Your task to perform on an android device: check the backup settings in the google photos Image 0: 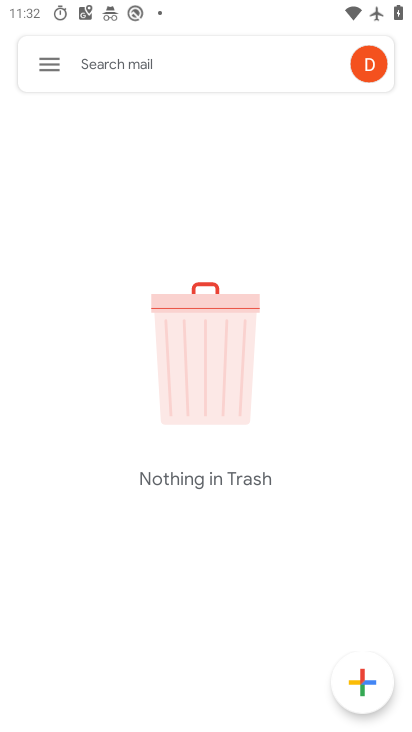
Step 0: press back button
Your task to perform on an android device: check the backup settings in the google photos Image 1: 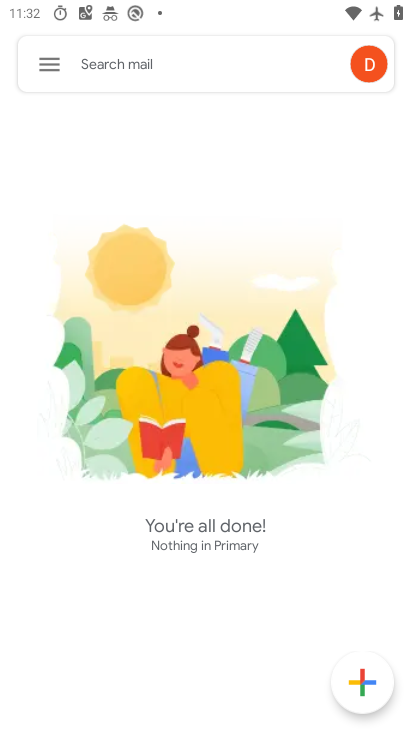
Step 1: drag from (260, 571) to (98, 150)
Your task to perform on an android device: check the backup settings in the google photos Image 2: 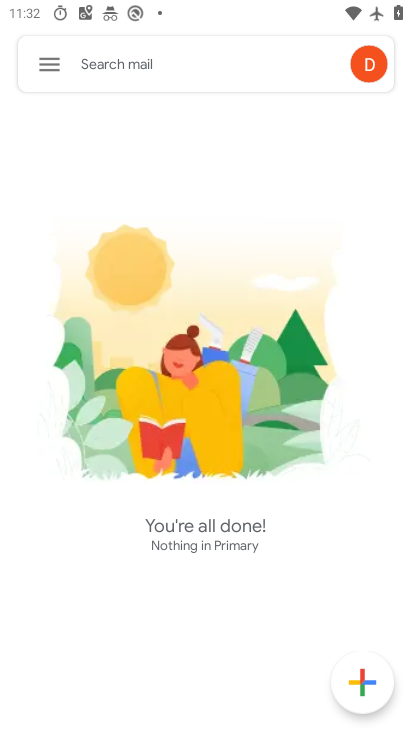
Step 2: drag from (225, 539) to (132, 124)
Your task to perform on an android device: check the backup settings in the google photos Image 3: 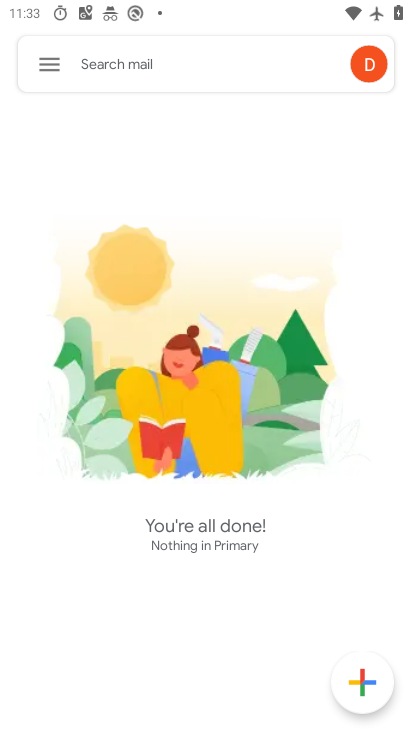
Step 3: drag from (226, 519) to (111, 129)
Your task to perform on an android device: check the backup settings in the google photos Image 4: 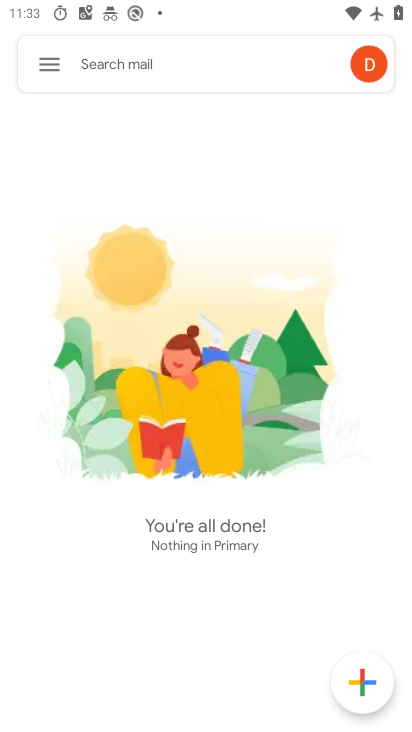
Step 4: drag from (247, 448) to (258, 126)
Your task to perform on an android device: check the backup settings in the google photos Image 5: 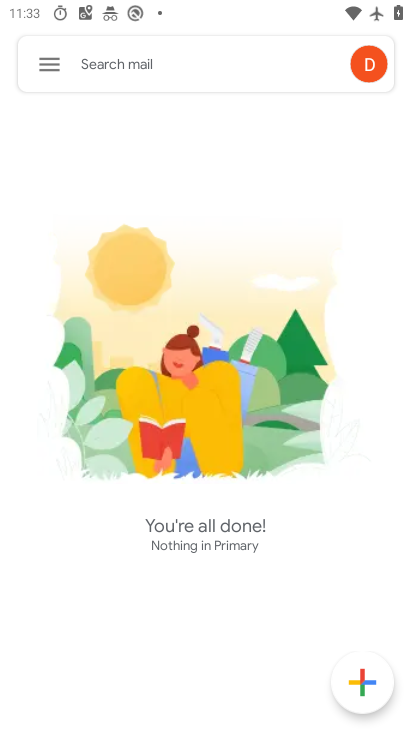
Step 5: drag from (235, 510) to (201, 91)
Your task to perform on an android device: check the backup settings in the google photos Image 6: 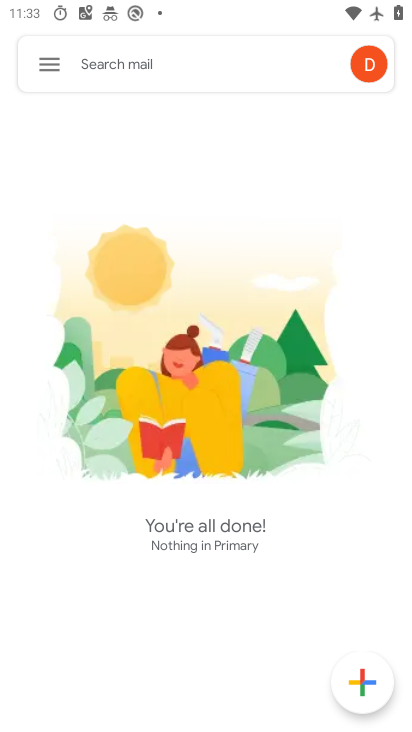
Step 6: drag from (205, 389) to (149, 241)
Your task to perform on an android device: check the backup settings in the google photos Image 7: 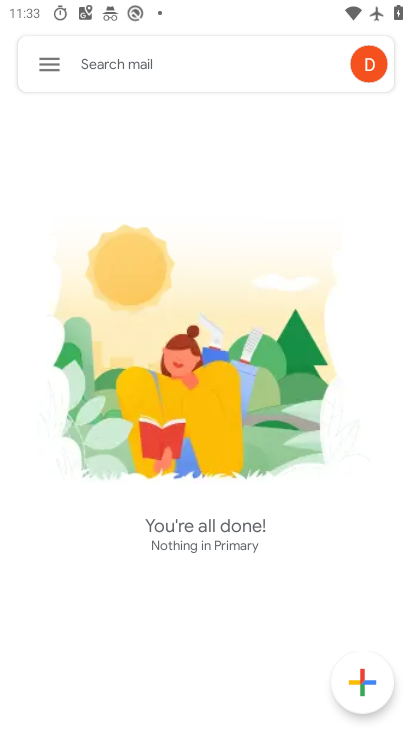
Step 7: drag from (173, 463) to (154, 264)
Your task to perform on an android device: check the backup settings in the google photos Image 8: 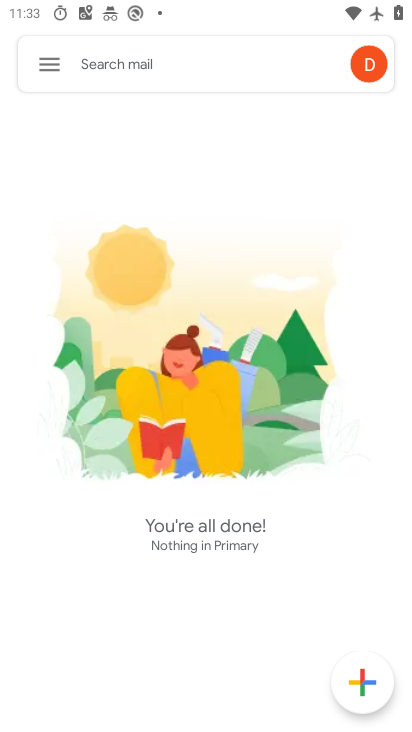
Step 8: drag from (221, 613) to (212, 261)
Your task to perform on an android device: check the backup settings in the google photos Image 9: 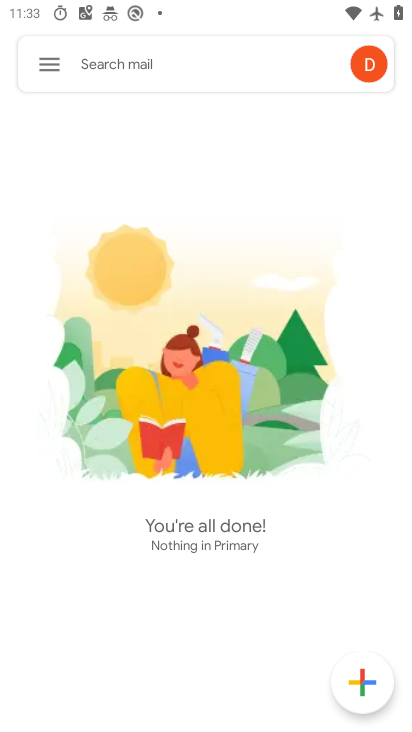
Step 9: drag from (215, 513) to (238, 86)
Your task to perform on an android device: check the backup settings in the google photos Image 10: 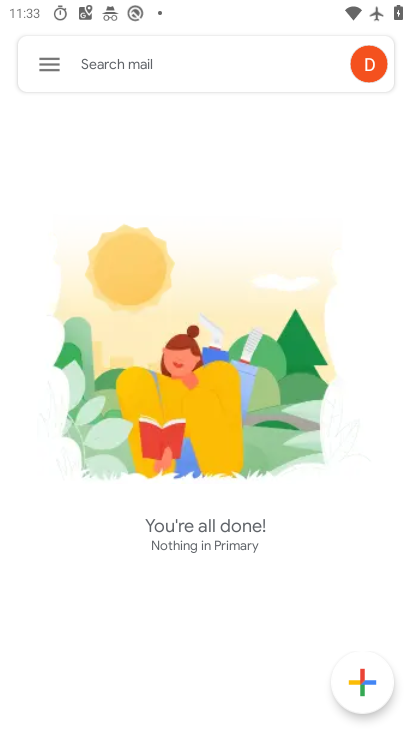
Step 10: drag from (321, 491) to (288, 78)
Your task to perform on an android device: check the backup settings in the google photos Image 11: 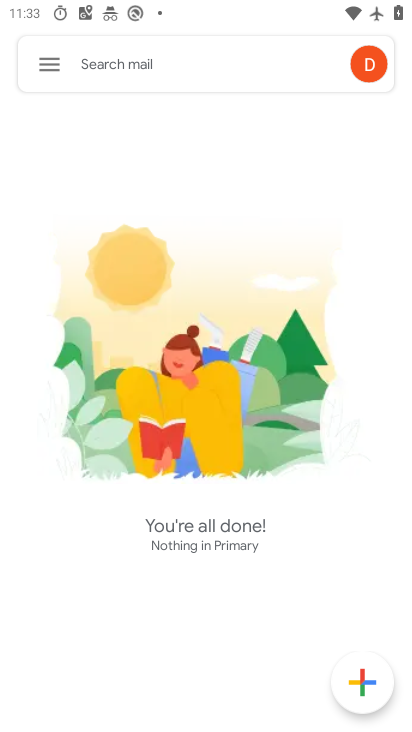
Step 11: press back button
Your task to perform on an android device: check the backup settings in the google photos Image 12: 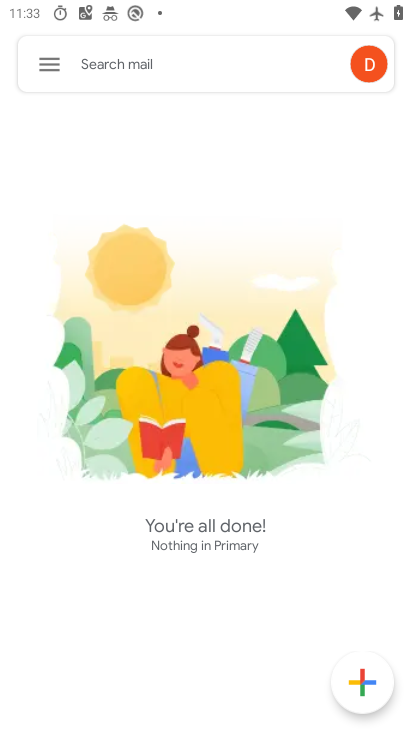
Step 12: press back button
Your task to perform on an android device: check the backup settings in the google photos Image 13: 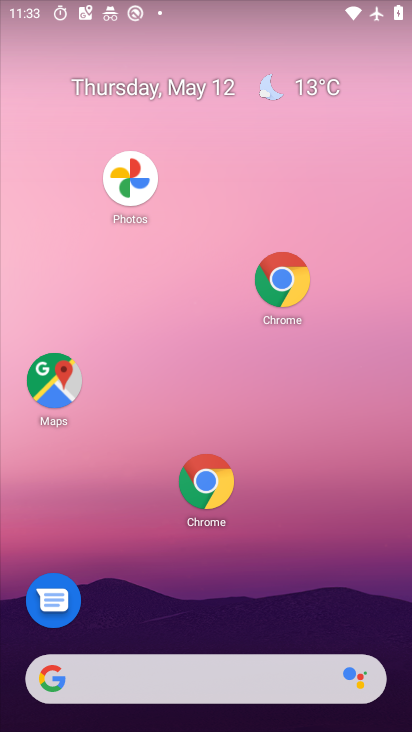
Step 13: drag from (321, 543) to (216, 166)
Your task to perform on an android device: check the backup settings in the google photos Image 14: 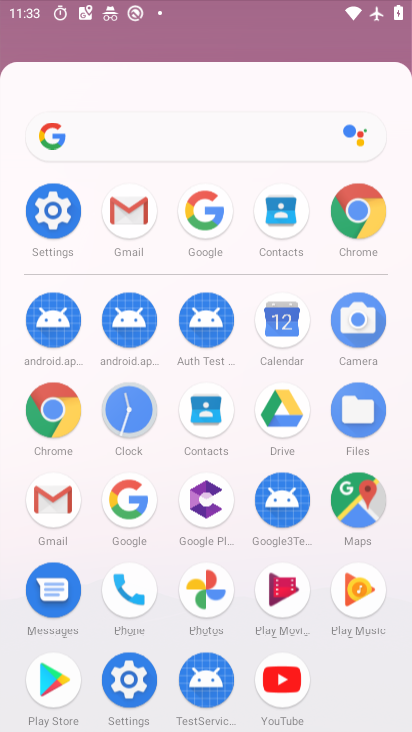
Step 14: drag from (245, 407) to (174, 183)
Your task to perform on an android device: check the backup settings in the google photos Image 15: 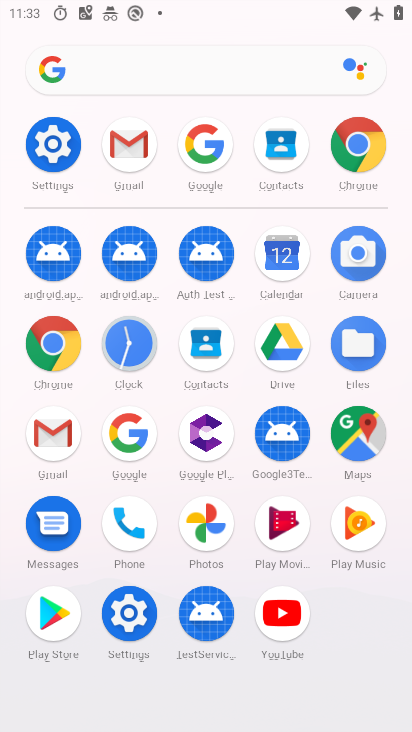
Step 15: click (207, 517)
Your task to perform on an android device: check the backup settings in the google photos Image 16: 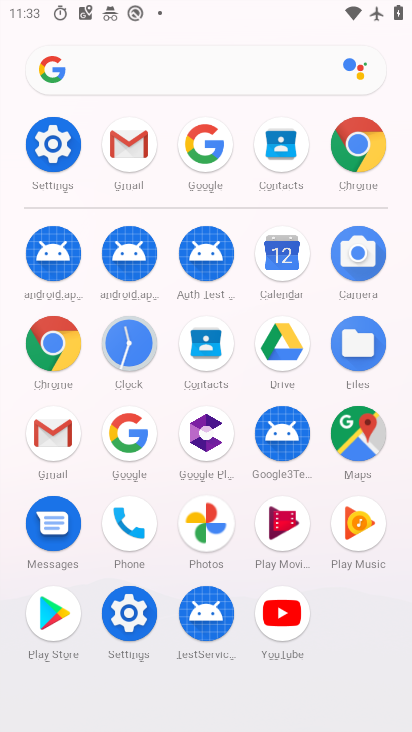
Step 16: click (207, 517)
Your task to perform on an android device: check the backup settings in the google photos Image 17: 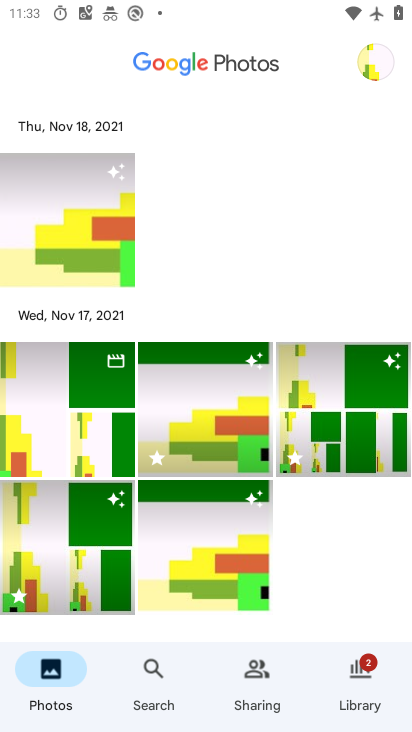
Step 17: drag from (183, 413) to (175, 173)
Your task to perform on an android device: check the backup settings in the google photos Image 18: 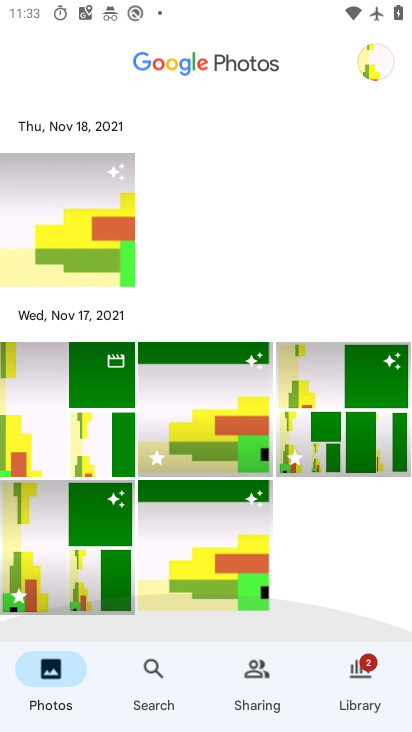
Step 18: drag from (177, 446) to (58, 6)
Your task to perform on an android device: check the backup settings in the google photos Image 19: 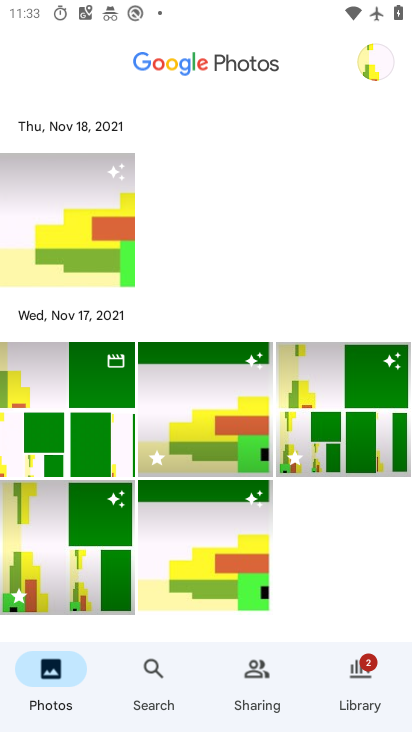
Step 19: drag from (158, 400) to (124, 55)
Your task to perform on an android device: check the backup settings in the google photos Image 20: 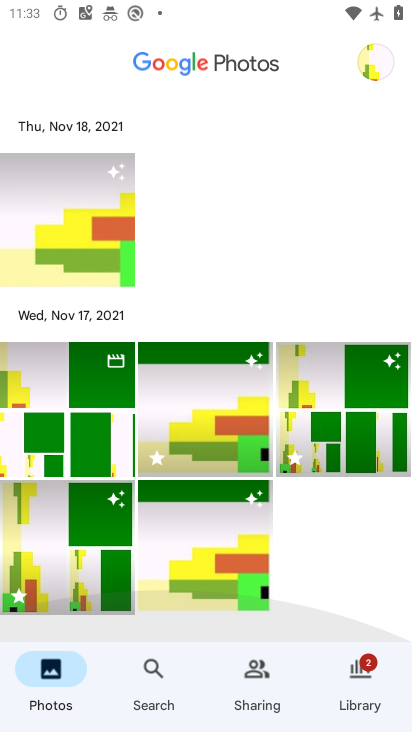
Step 20: drag from (227, 483) to (178, 196)
Your task to perform on an android device: check the backup settings in the google photos Image 21: 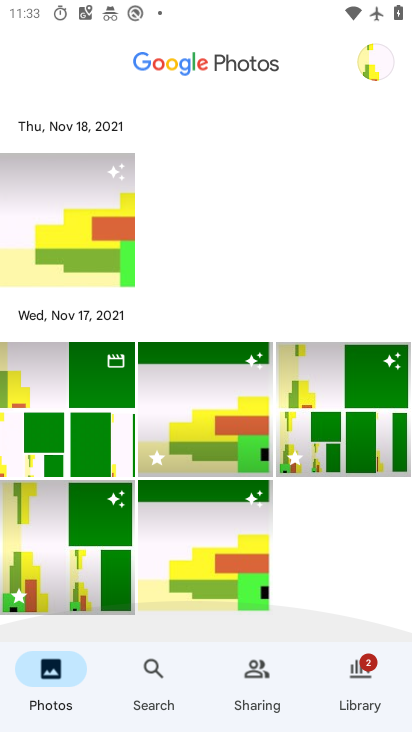
Step 21: drag from (156, 481) to (109, 294)
Your task to perform on an android device: check the backup settings in the google photos Image 22: 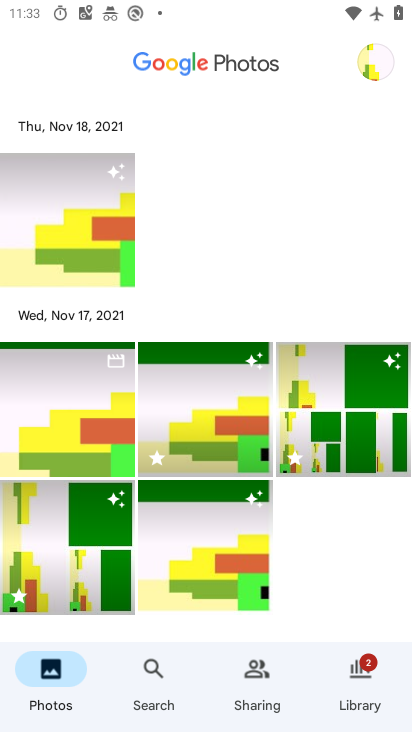
Step 22: drag from (180, 465) to (164, 256)
Your task to perform on an android device: check the backup settings in the google photos Image 23: 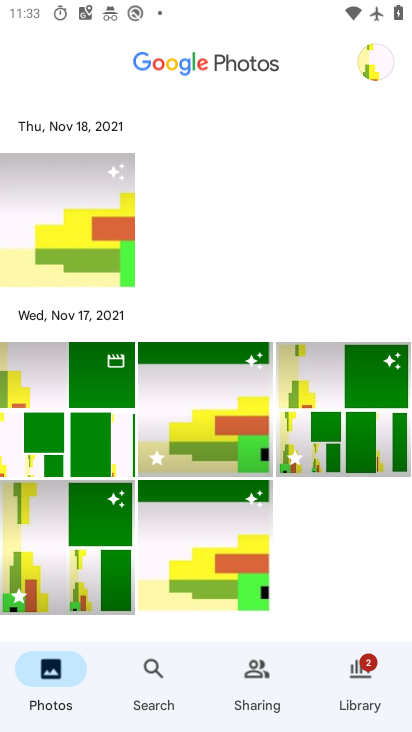
Step 23: drag from (249, 504) to (194, 106)
Your task to perform on an android device: check the backup settings in the google photos Image 24: 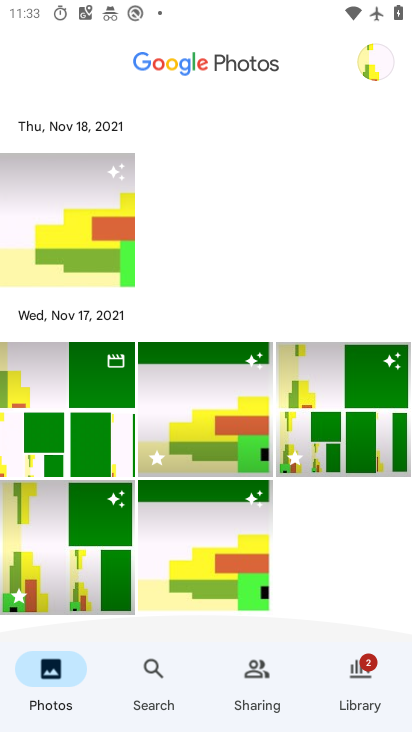
Step 24: drag from (239, 479) to (164, 300)
Your task to perform on an android device: check the backup settings in the google photos Image 25: 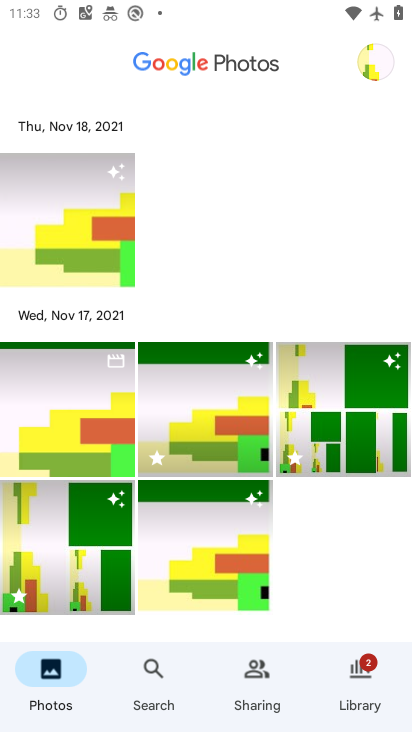
Step 25: drag from (153, 547) to (61, 228)
Your task to perform on an android device: check the backup settings in the google photos Image 26: 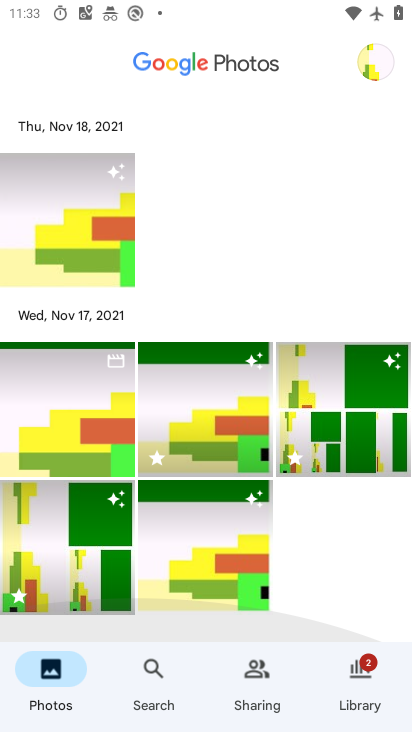
Step 26: drag from (195, 575) to (131, 379)
Your task to perform on an android device: check the backup settings in the google photos Image 27: 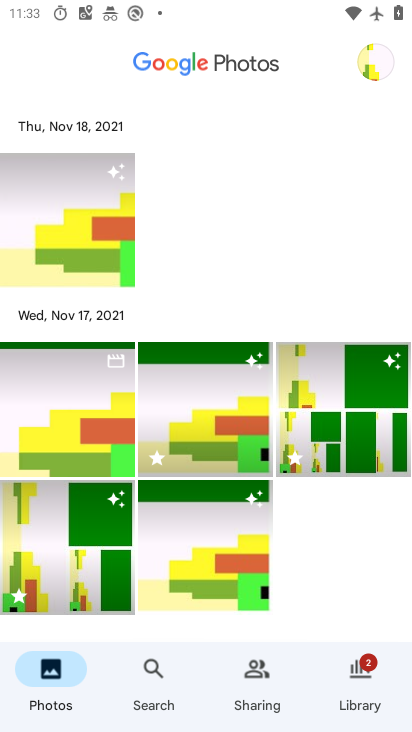
Step 27: click (54, 659)
Your task to perform on an android device: check the backup settings in the google photos Image 28: 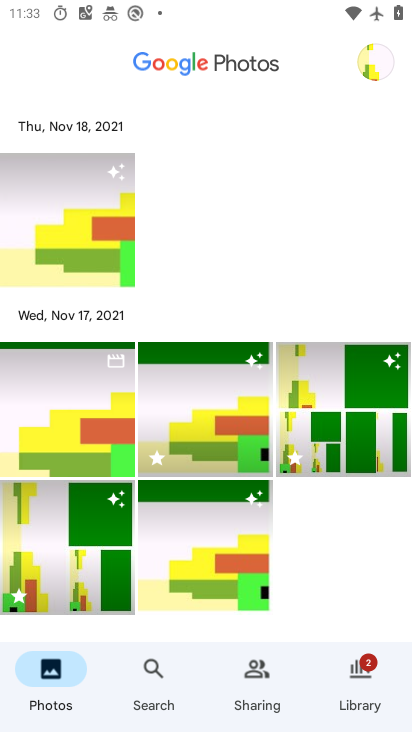
Step 28: click (51, 653)
Your task to perform on an android device: check the backup settings in the google photos Image 29: 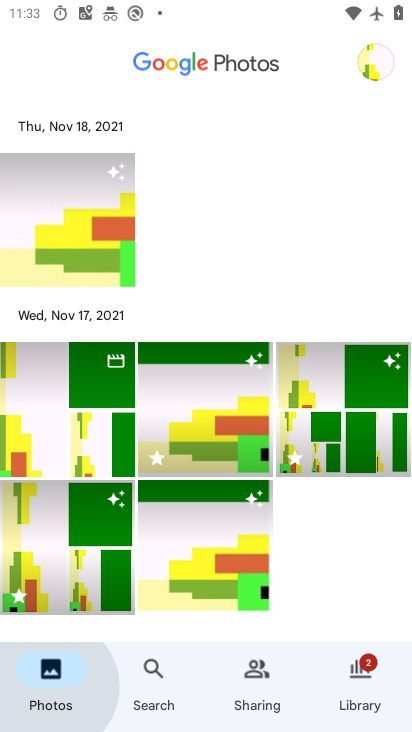
Step 29: click (137, 685)
Your task to perform on an android device: check the backup settings in the google photos Image 30: 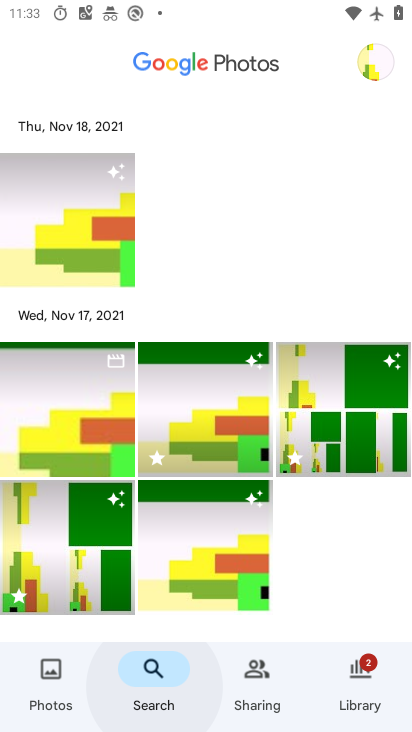
Step 30: click (145, 672)
Your task to perform on an android device: check the backup settings in the google photos Image 31: 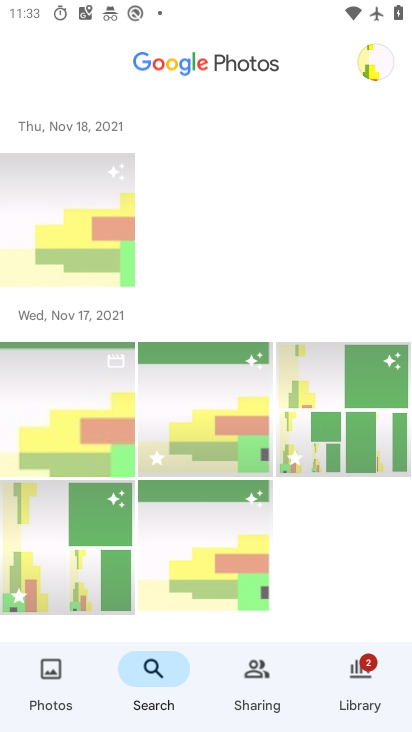
Step 31: click (145, 667)
Your task to perform on an android device: check the backup settings in the google photos Image 32: 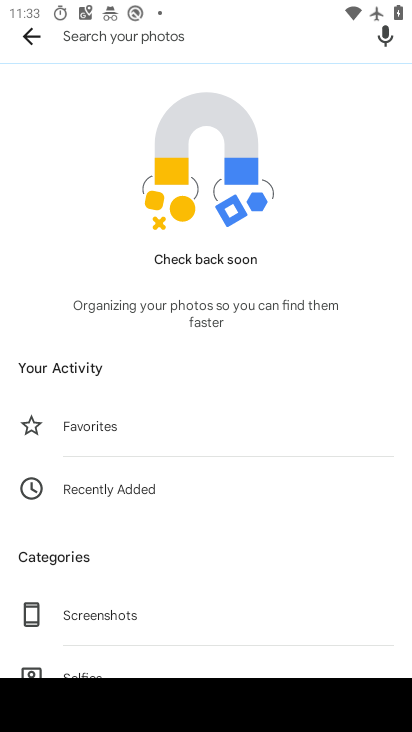
Step 32: click (26, 35)
Your task to perform on an android device: check the backup settings in the google photos Image 33: 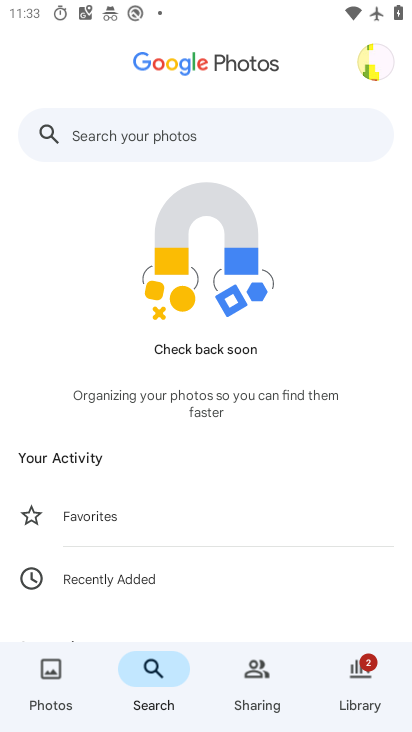
Step 33: click (367, 676)
Your task to perform on an android device: check the backup settings in the google photos Image 34: 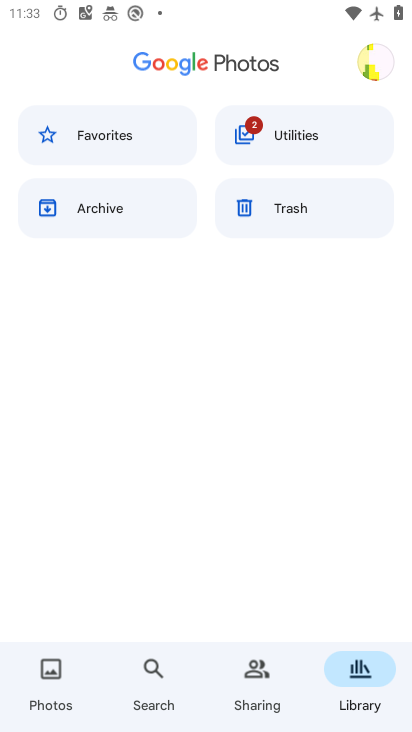
Step 34: click (362, 679)
Your task to perform on an android device: check the backup settings in the google photos Image 35: 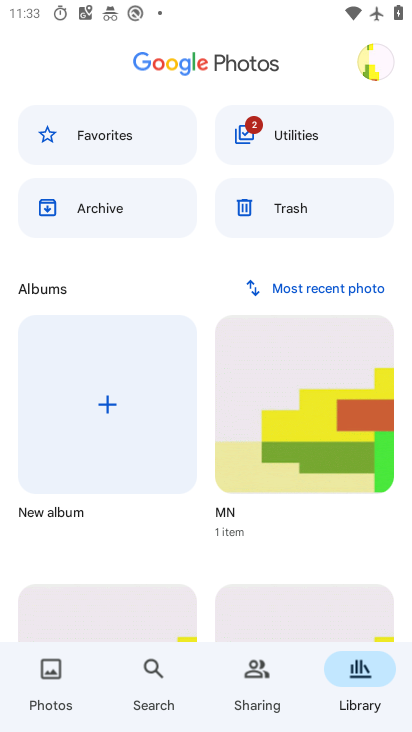
Step 35: click (47, 697)
Your task to perform on an android device: check the backup settings in the google photos Image 36: 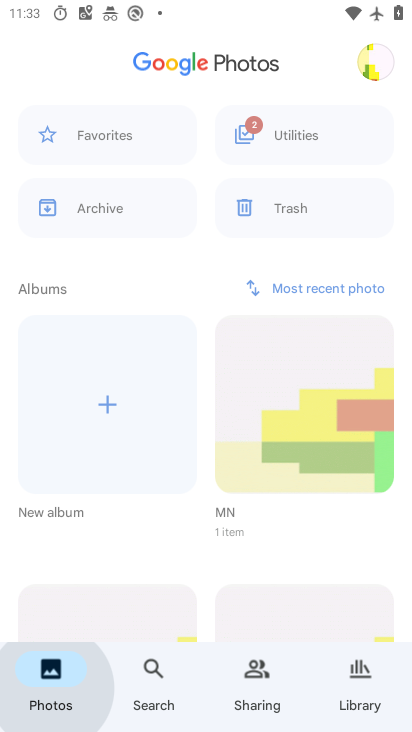
Step 36: click (48, 698)
Your task to perform on an android device: check the backup settings in the google photos Image 37: 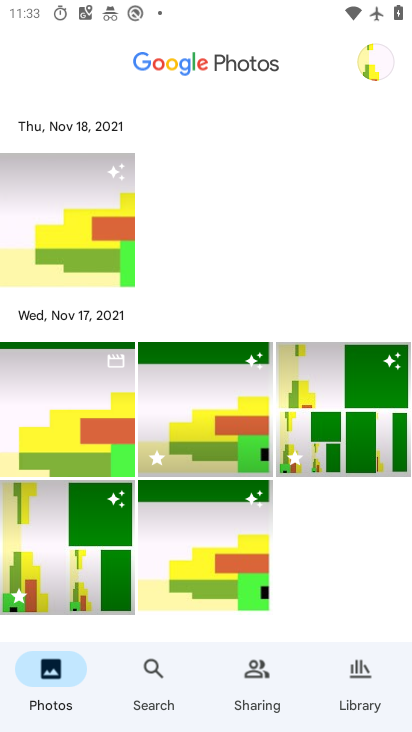
Step 37: task complete